Your task to perform on an android device: Open Android settings Image 0: 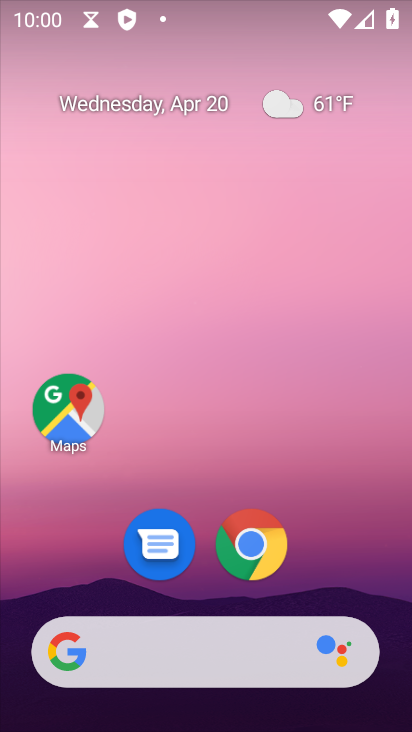
Step 0: drag from (193, 576) to (317, 55)
Your task to perform on an android device: Open Android settings Image 1: 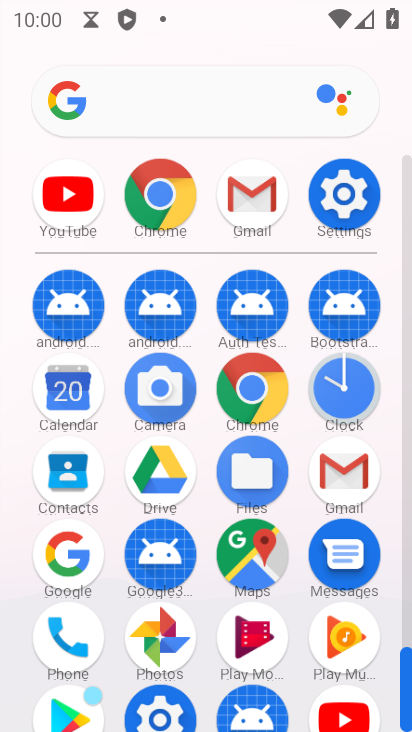
Step 1: click (333, 199)
Your task to perform on an android device: Open Android settings Image 2: 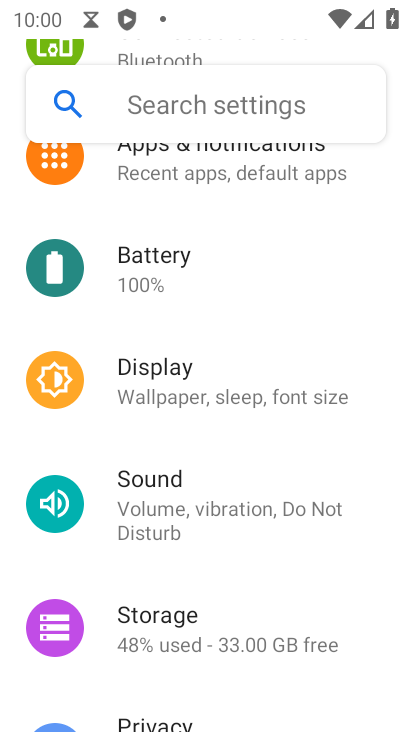
Step 2: task complete